Your task to perform on an android device: Search for Italian restaurants on Maps Image 0: 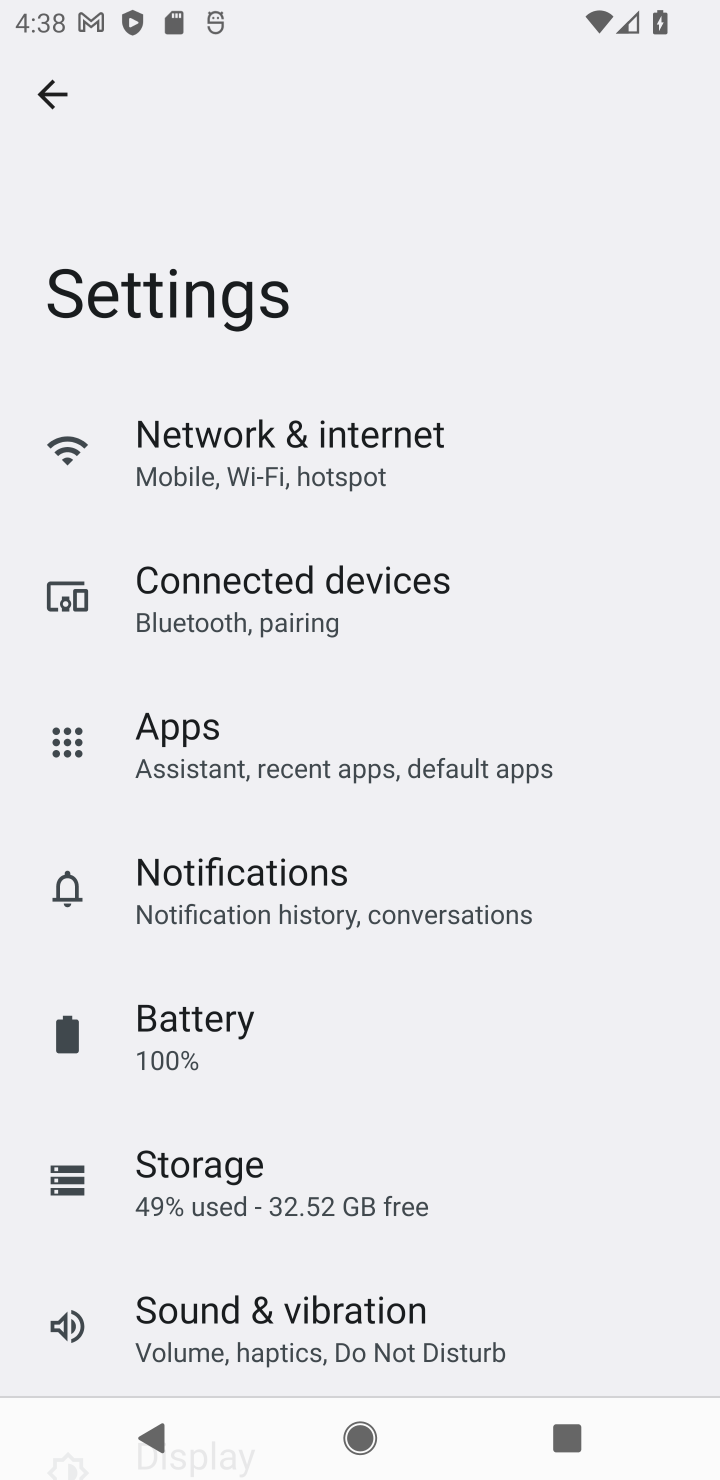
Step 0: press home button
Your task to perform on an android device: Search for Italian restaurants on Maps Image 1: 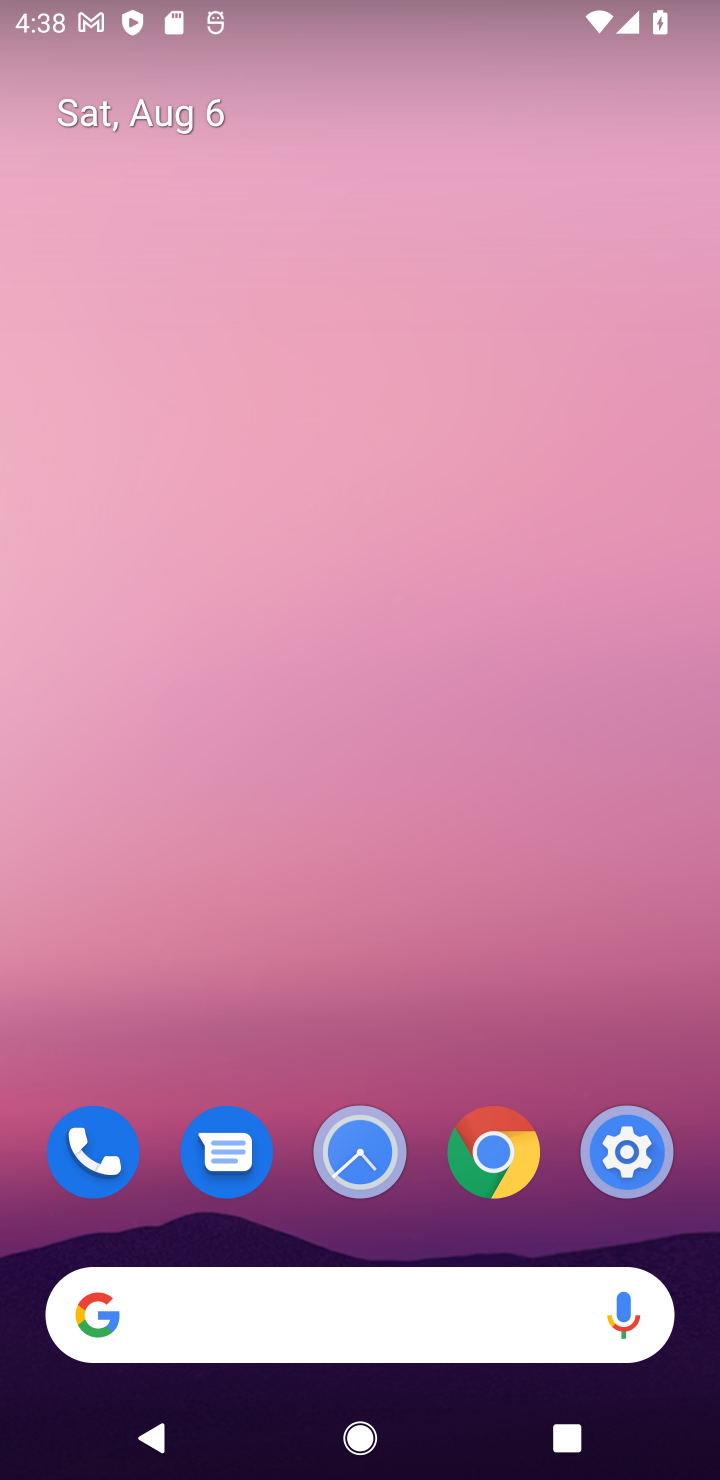
Step 1: drag from (453, 1033) to (435, 234)
Your task to perform on an android device: Search for Italian restaurants on Maps Image 2: 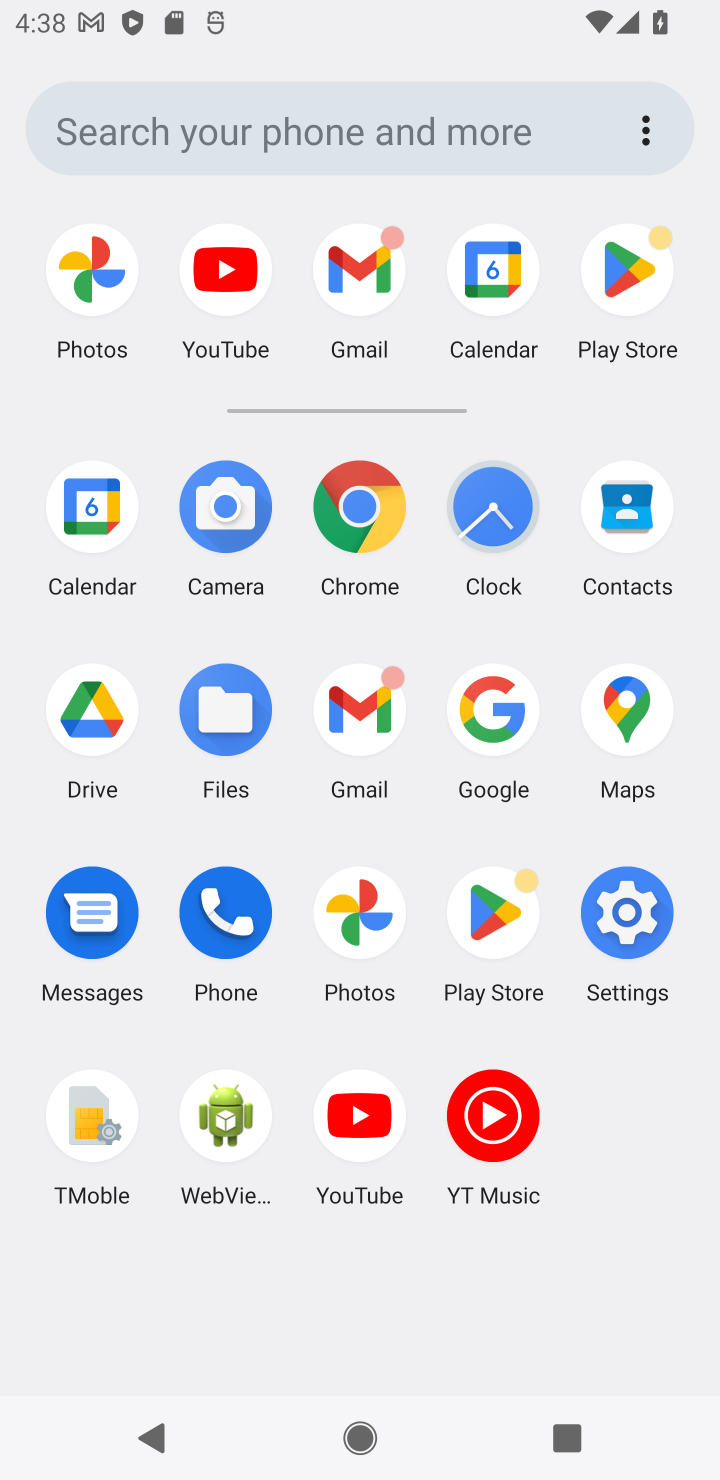
Step 2: click (629, 697)
Your task to perform on an android device: Search for Italian restaurants on Maps Image 3: 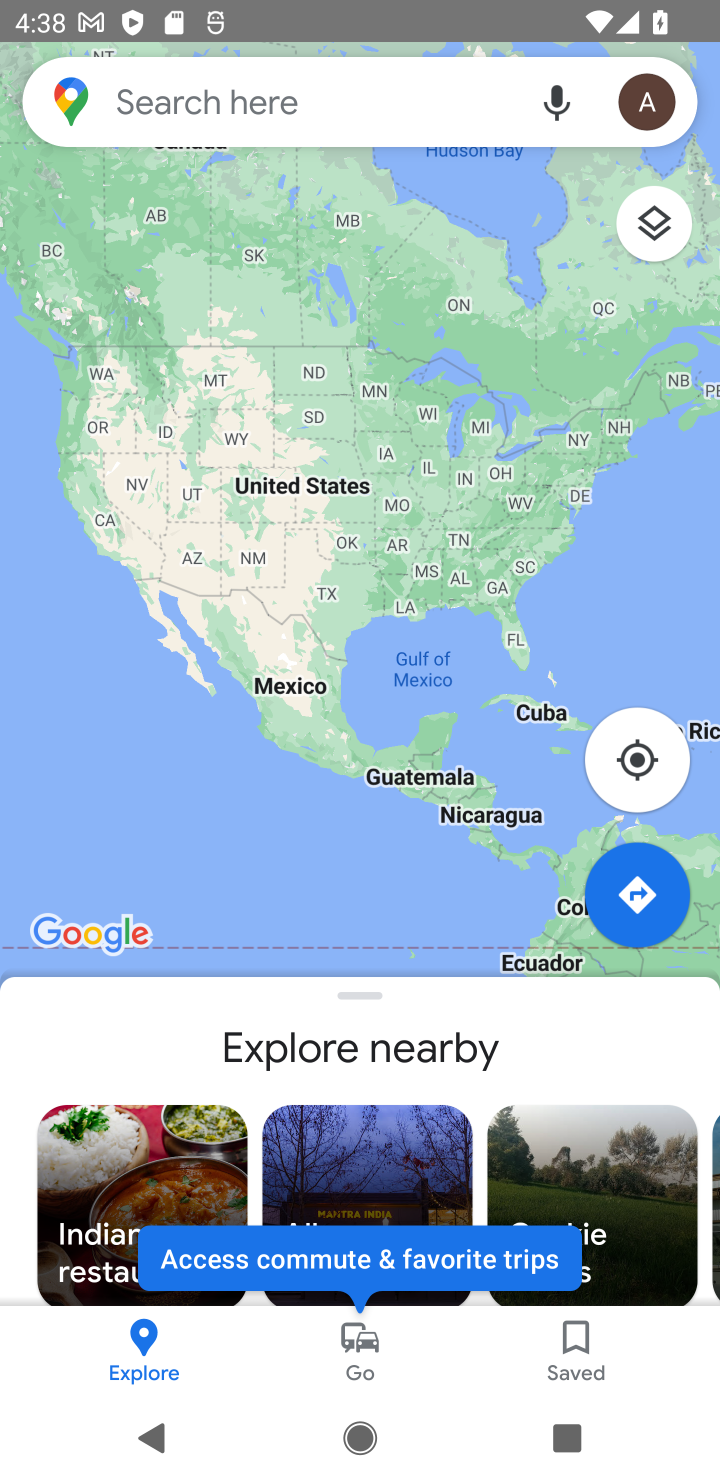
Step 3: click (334, 88)
Your task to perform on an android device: Search for Italian restaurants on Maps Image 4: 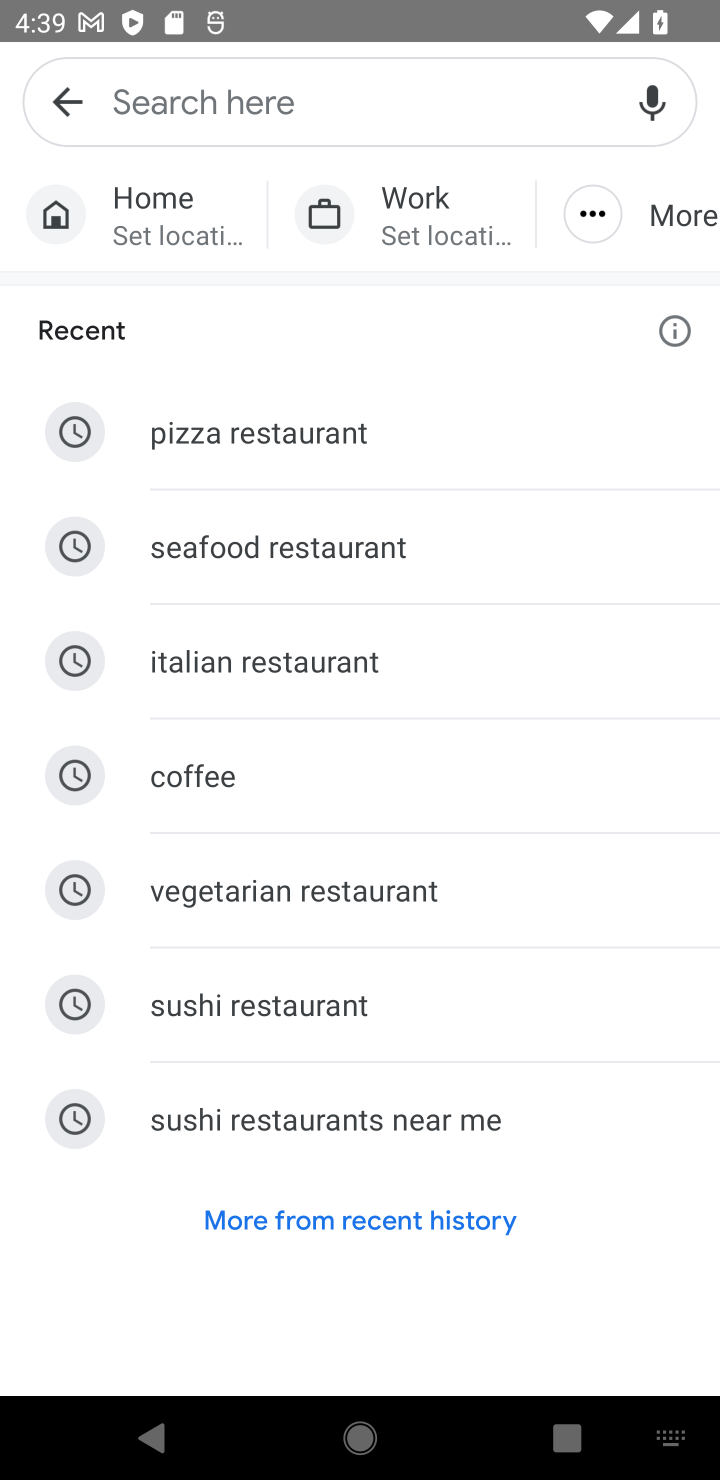
Step 4: type "Italian restaurants"
Your task to perform on an android device: Search for Italian restaurants on Maps Image 5: 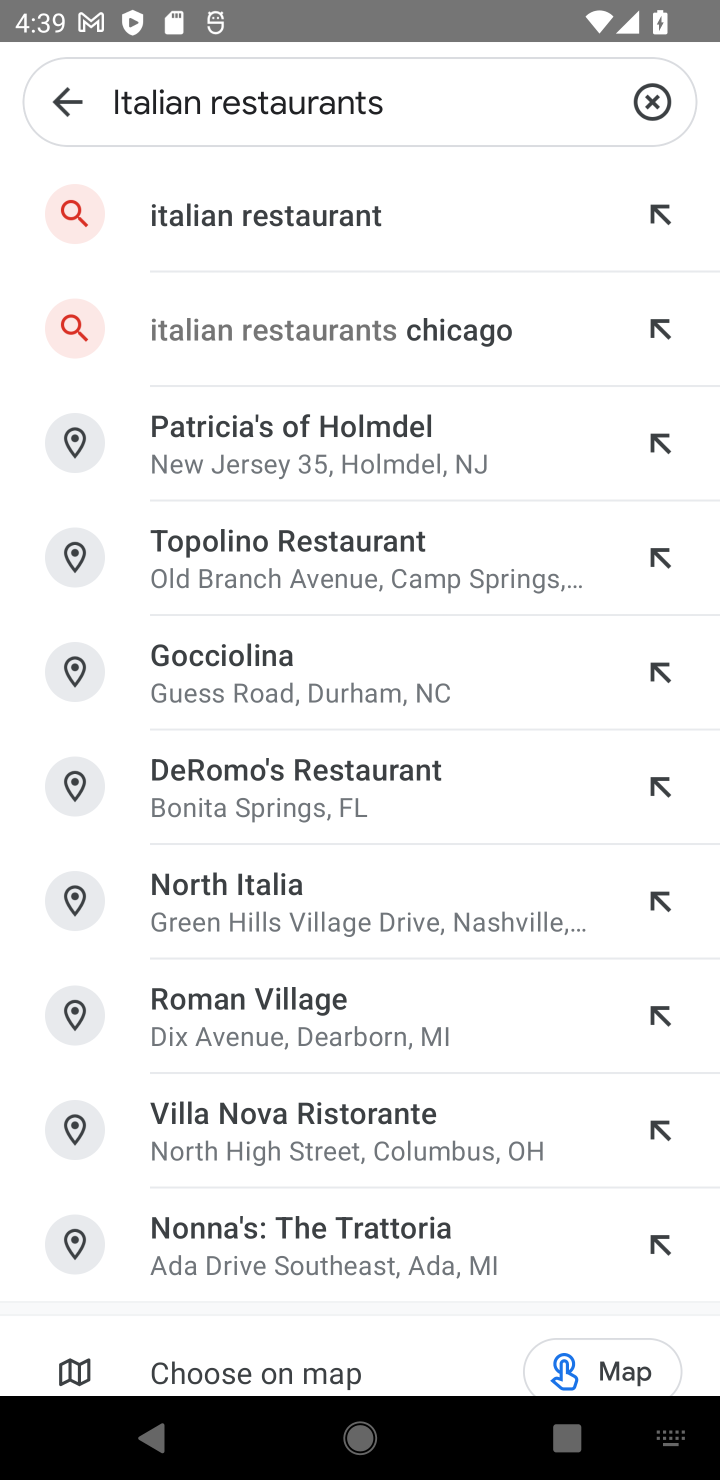
Step 5: press enter
Your task to perform on an android device: Search for Italian restaurants on Maps Image 6: 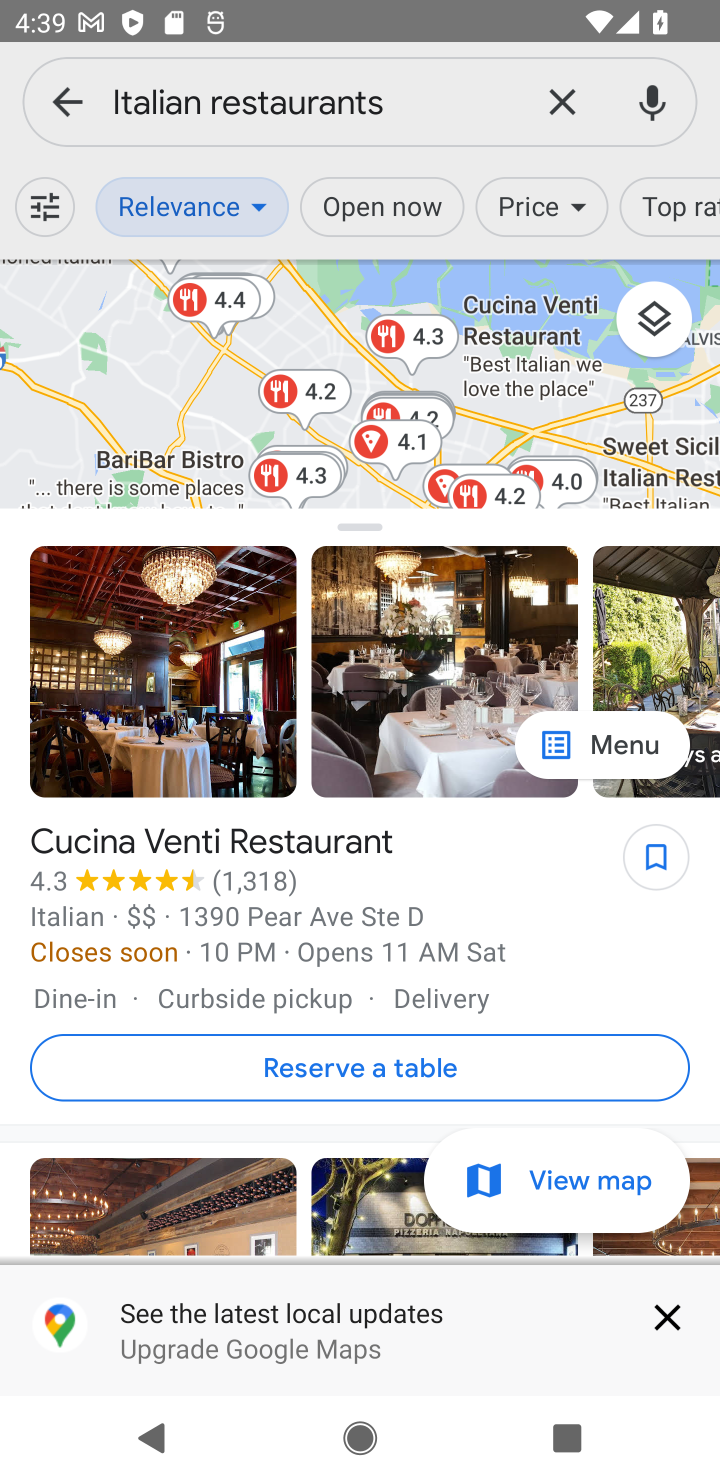
Step 6: task complete